Your task to perform on an android device: Open Chrome and go to the settings page Image 0: 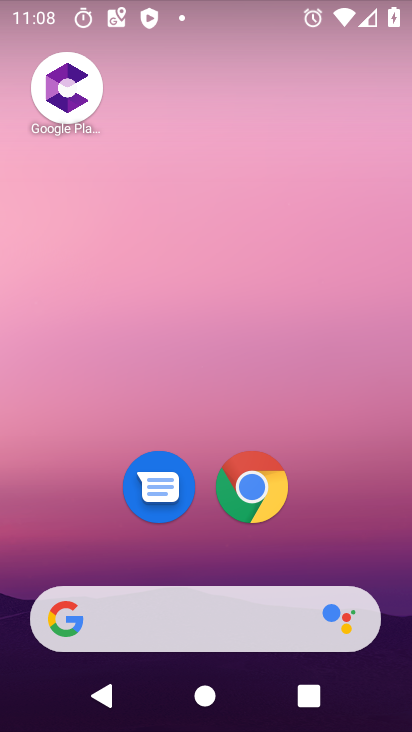
Step 0: click (251, 478)
Your task to perform on an android device: Open Chrome and go to the settings page Image 1: 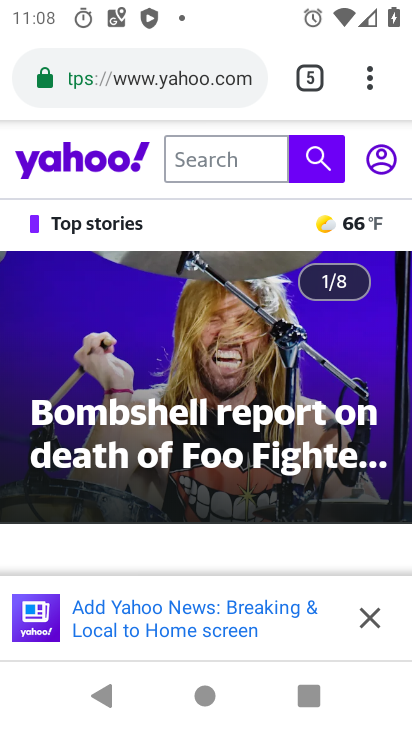
Step 1: click (373, 86)
Your task to perform on an android device: Open Chrome and go to the settings page Image 2: 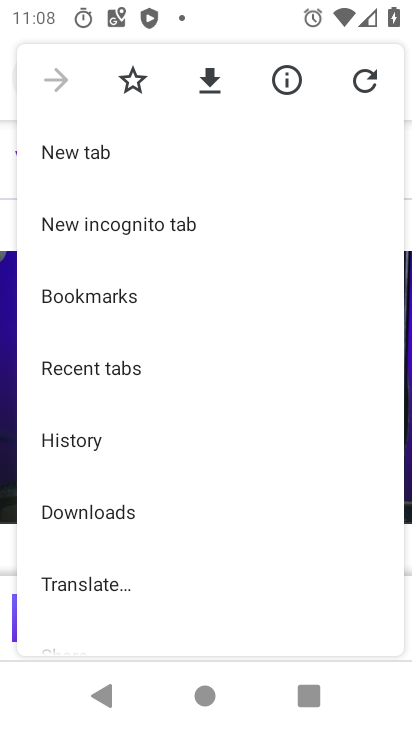
Step 2: drag from (80, 614) to (133, 194)
Your task to perform on an android device: Open Chrome and go to the settings page Image 3: 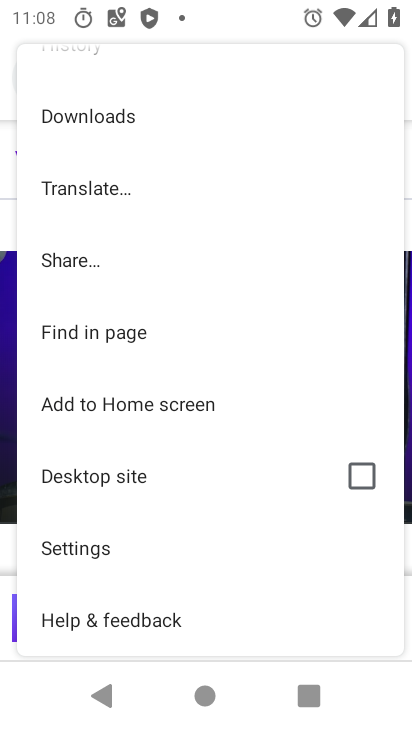
Step 3: click (88, 543)
Your task to perform on an android device: Open Chrome and go to the settings page Image 4: 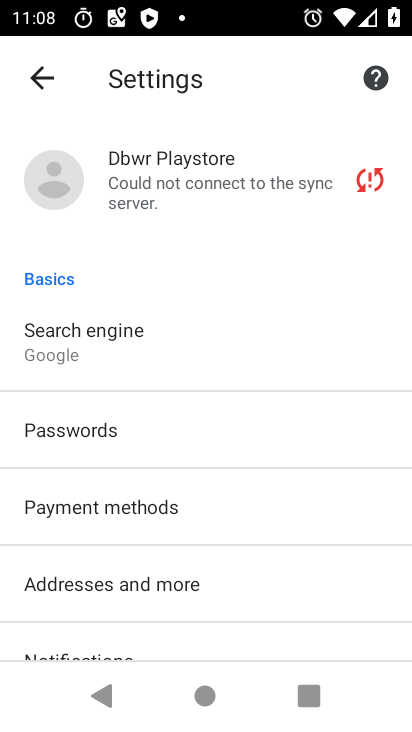
Step 4: task complete